Your task to perform on an android device: turn on showing notifications on the lock screen Image 0: 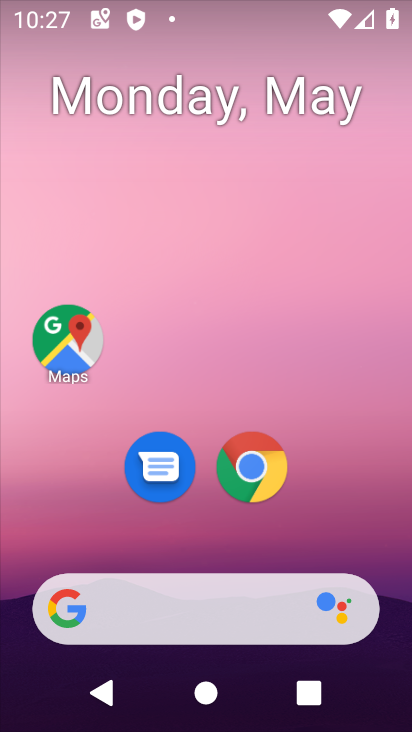
Step 0: drag from (391, 631) to (320, 77)
Your task to perform on an android device: turn on showing notifications on the lock screen Image 1: 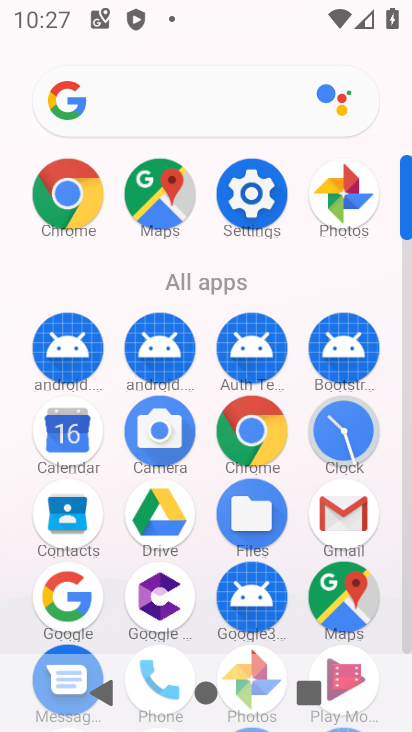
Step 1: click (405, 626)
Your task to perform on an android device: turn on showing notifications on the lock screen Image 2: 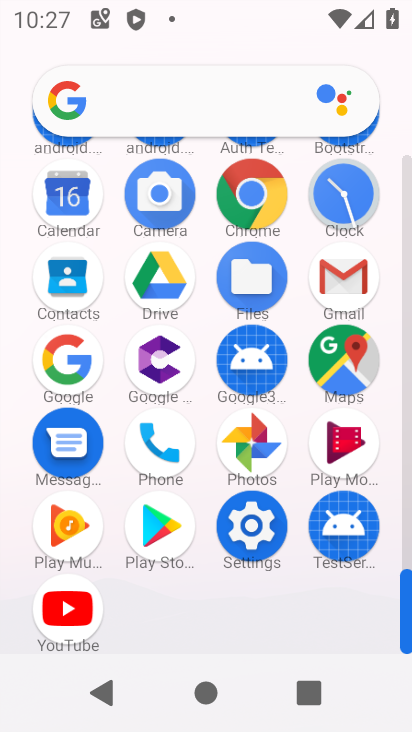
Step 2: click (248, 533)
Your task to perform on an android device: turn on showing notifications on the lock screen Image 3: 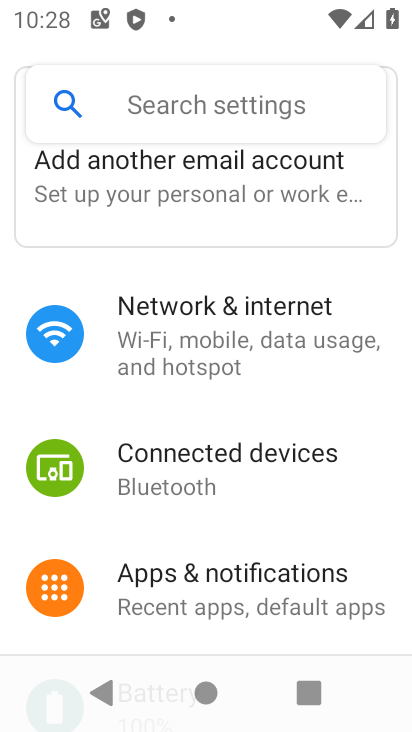
Step 3: drag from (349, 623) to (346, 222)
Your task to perform on an android device: turn on showing notifications on the lock screen Image 4: 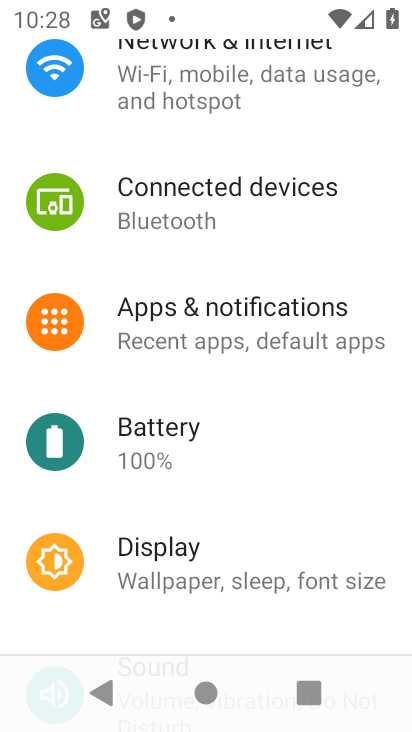
Step 4: click (179, 329)
Your task to perform on an android device: turn on showing notifications on the lock screen Image 5: 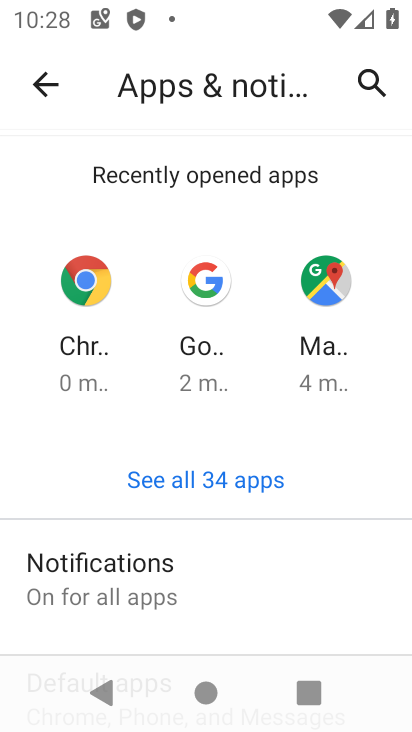
Step 5: drag from (287, 541) to (325, 178)
Your task to perform on an android device: turn on showing notifications on the lock screen Image 6: 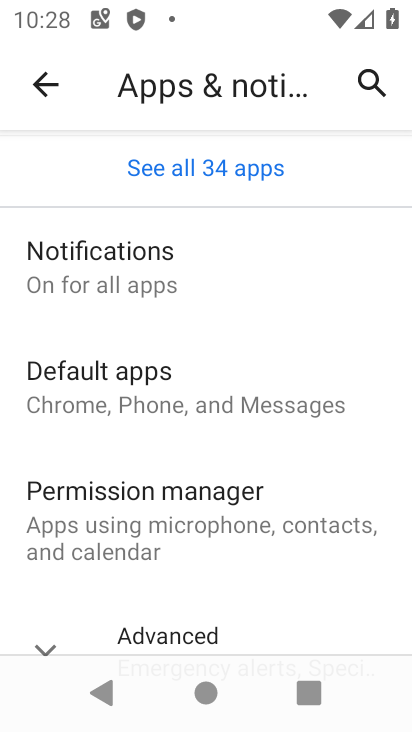
Step 6: click (87, 262)
Your task to perform on an android device: turn on showing notifications on the lock screen Image 7: 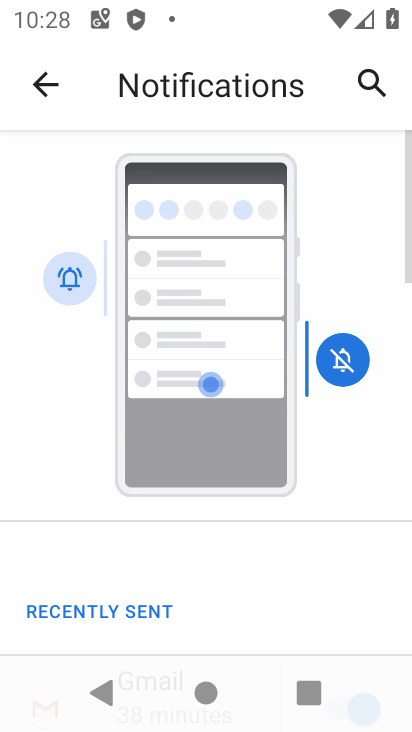
Step 7: drag from (298, 650) to (340, 189)
Your task to perform on an android device: turn on showing notifications on the lock screen Image 8: 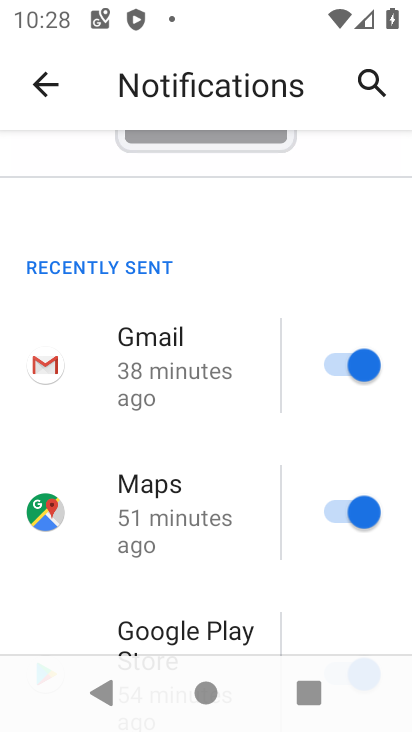
Step 8: drag from (289, 607) to (276, 77)
Your task to perform on an android device: turn on showing notifications on the lock screen Image 9: 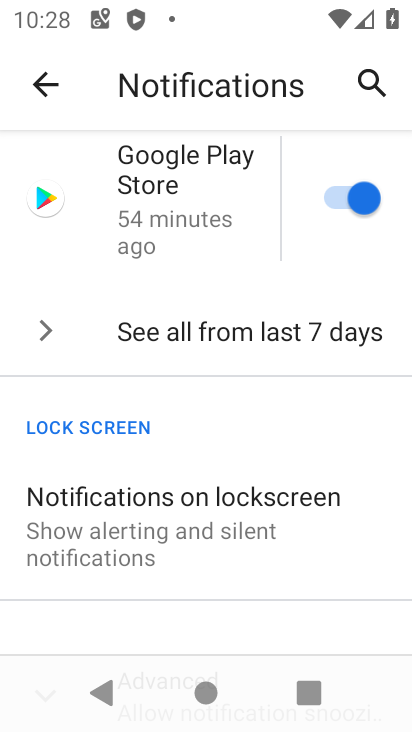
Step 9: drag from (277, 520) to (279, 198)
Your task to perform on an android device: turn on showing notifications on the lock screen Image 10: 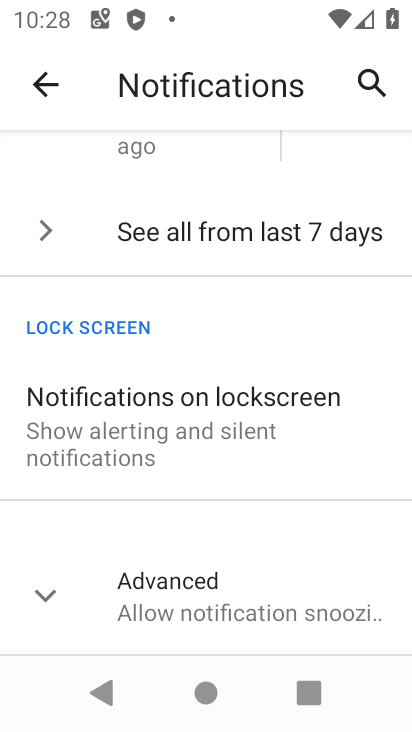
Step 10: click (146, 446)
Your task to perform on an android device: turn on showing notifications on the lock screen Image 11: 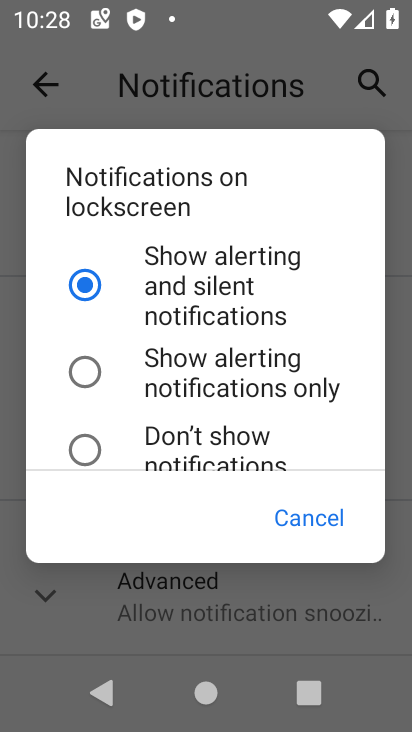
Step 11: task complete